Your task to perform on an android device: set the stopwatch Image 0: 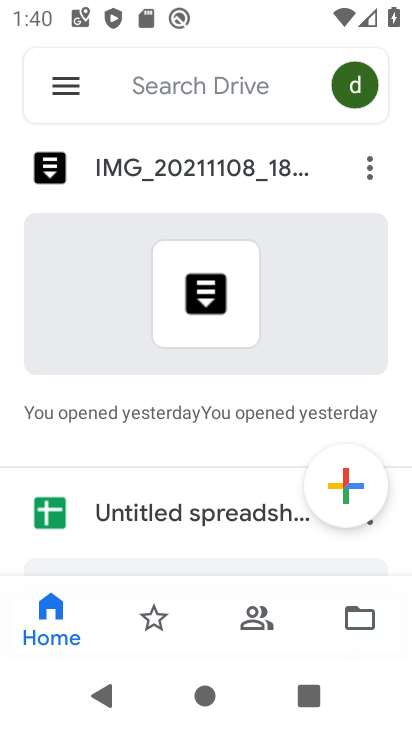
Step 0: press home button
Your task to perform on an android device: set the stopwatch Image 1: 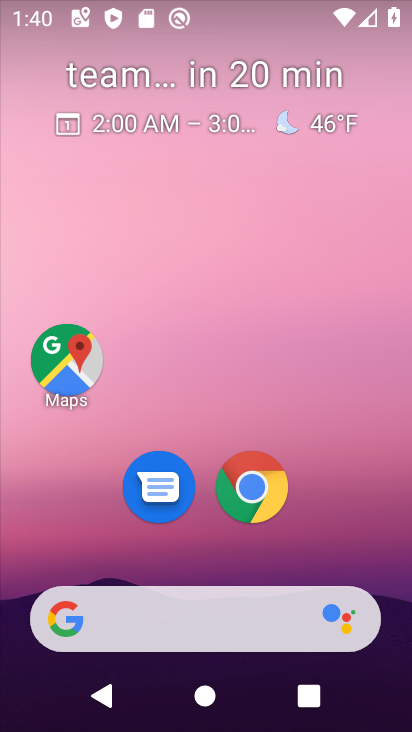
Step 1: drag from (365, 515) to (303, 157)
Your task to perform on an android device: set the stopwatch Image 2: 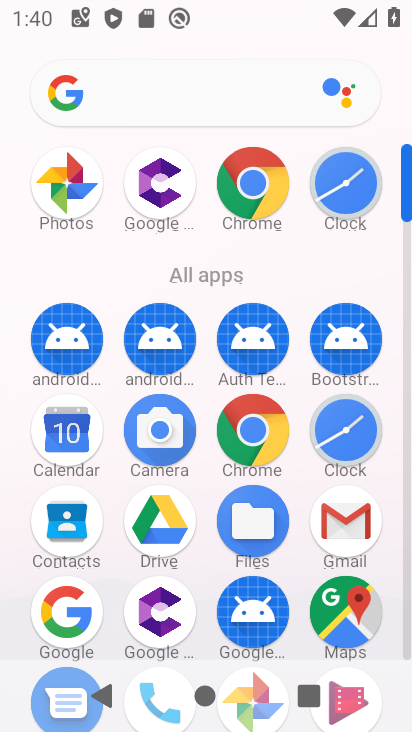
Step 2: click (348, 431)
Your task to perform on an android device: set the stopwatch Image 3: 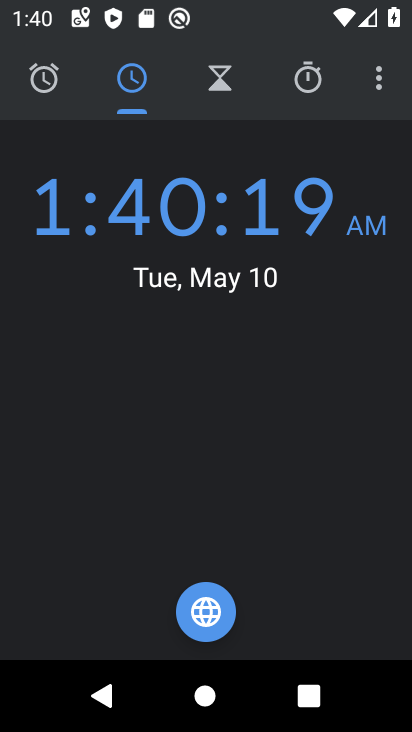
Step 3: click (215, 81)
Your task to perform on an android device: set the stopwatch Image 4: 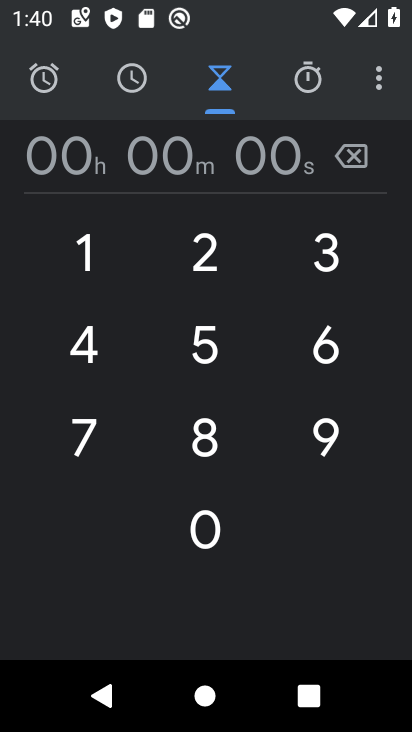
Step 4: click (199, 342)
Your task to perform on an android device: set the stopwatch Image 5: 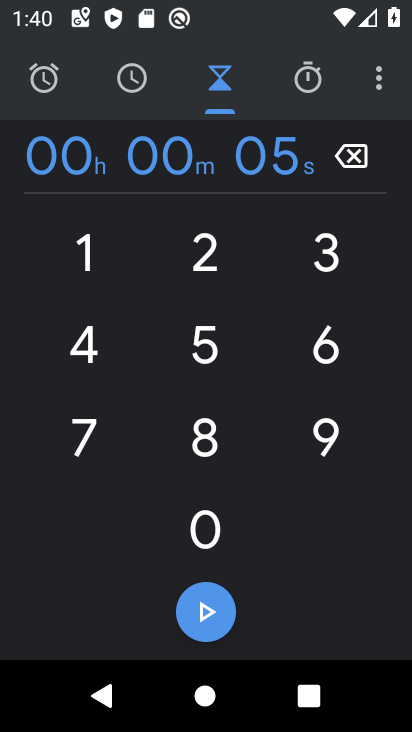
Step 5: task complete